Your task to perform on an android device: see creations saved in the google photos Image 0: 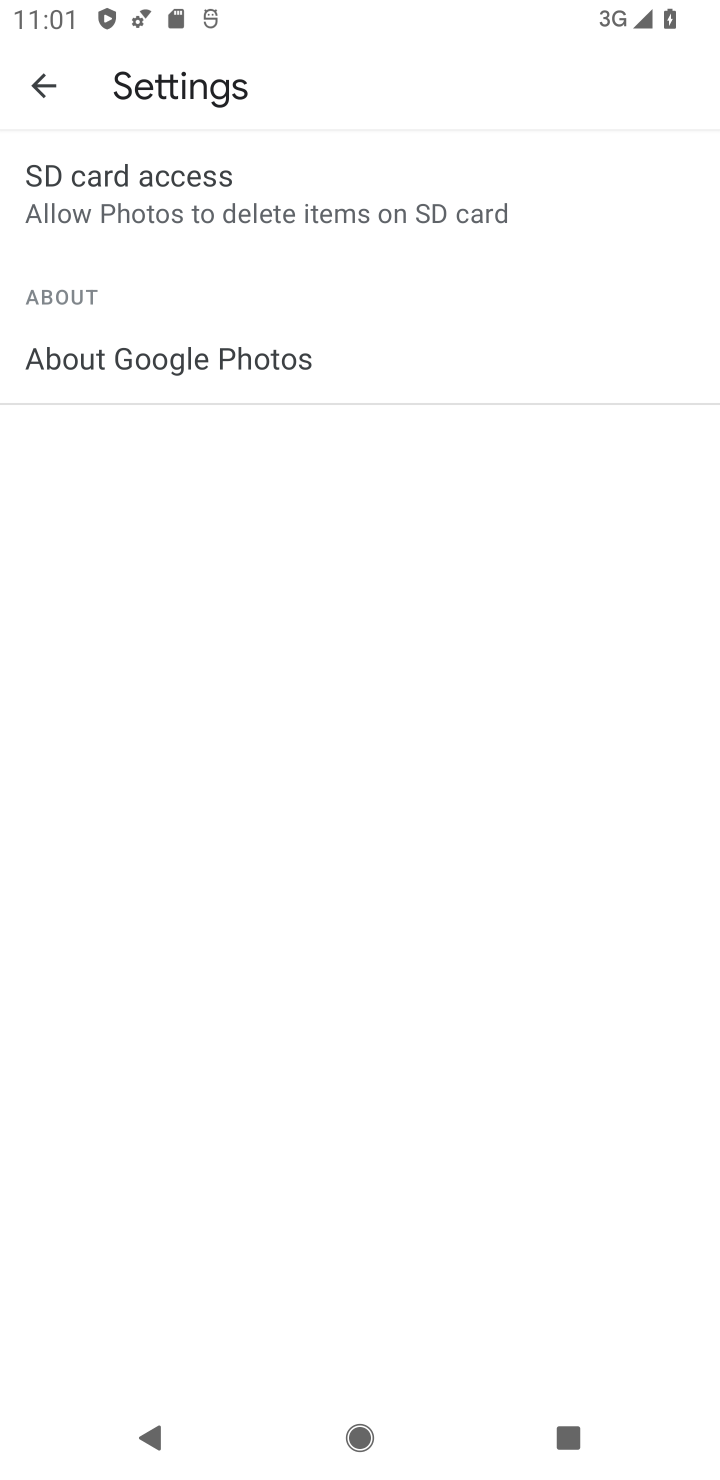
Step 0: press enter
Your task to perform on an android device: see creations saved in the google photos Image 1: 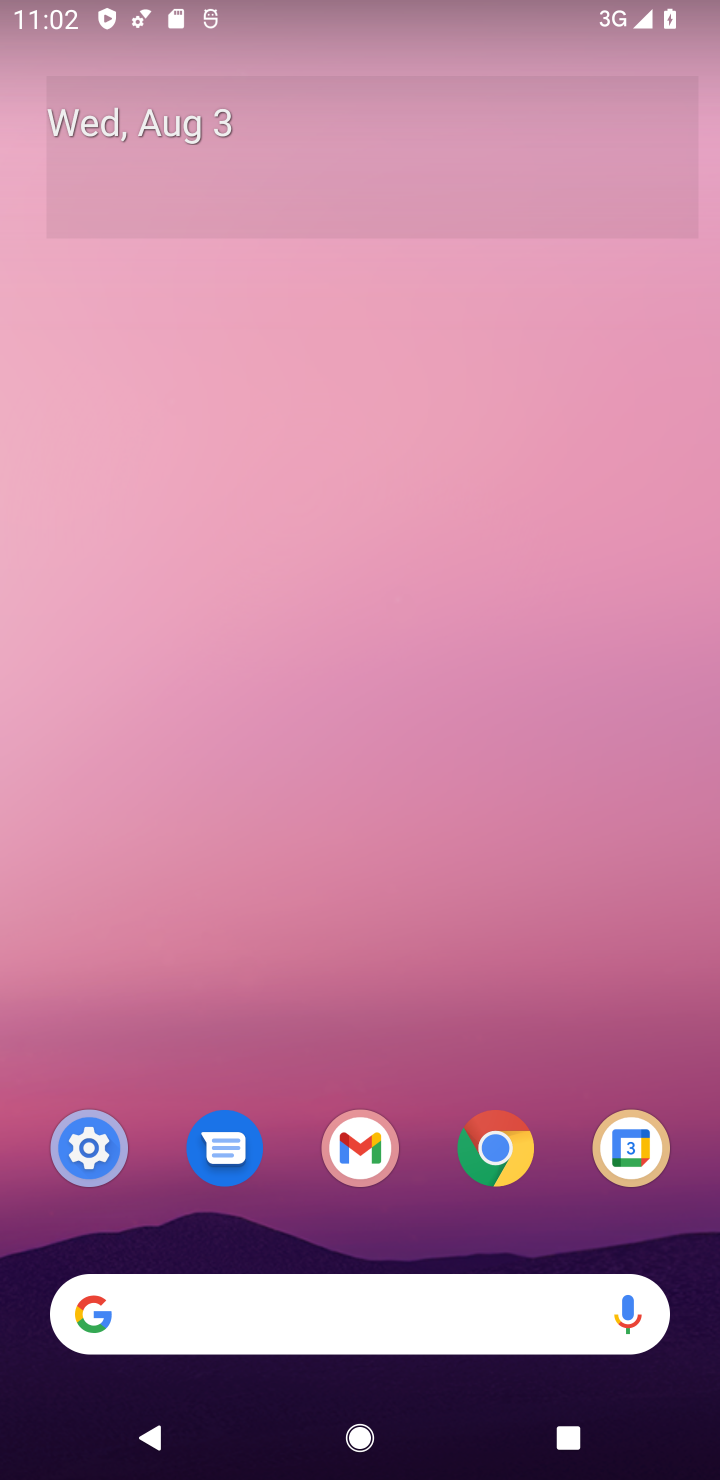
Step 1: drag from (402, 1043) to (478, 396)
Your task to perform on an android device: see creations saved in the google photos Image 2: 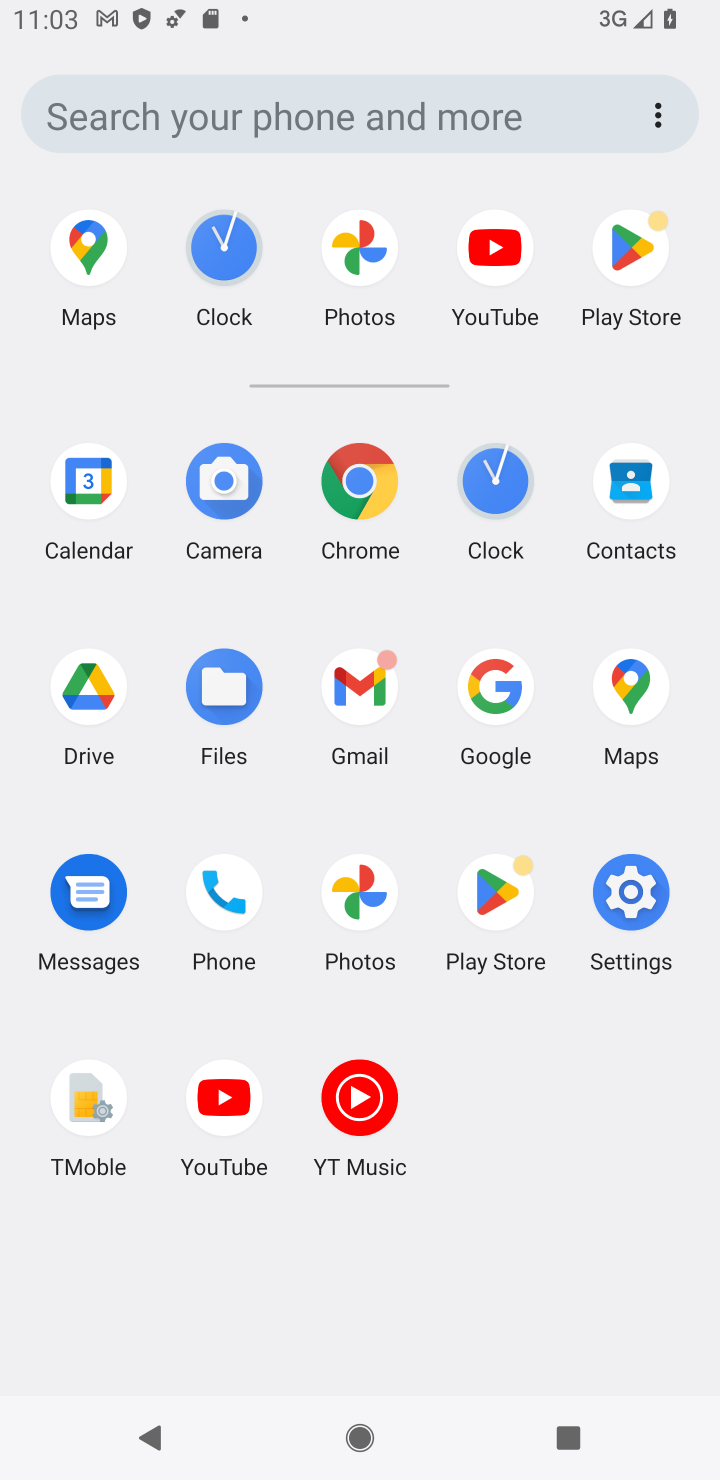
Step 2: click (350, 910)
Your task to perform on an android device: see creations saved in the google photos Image 3: 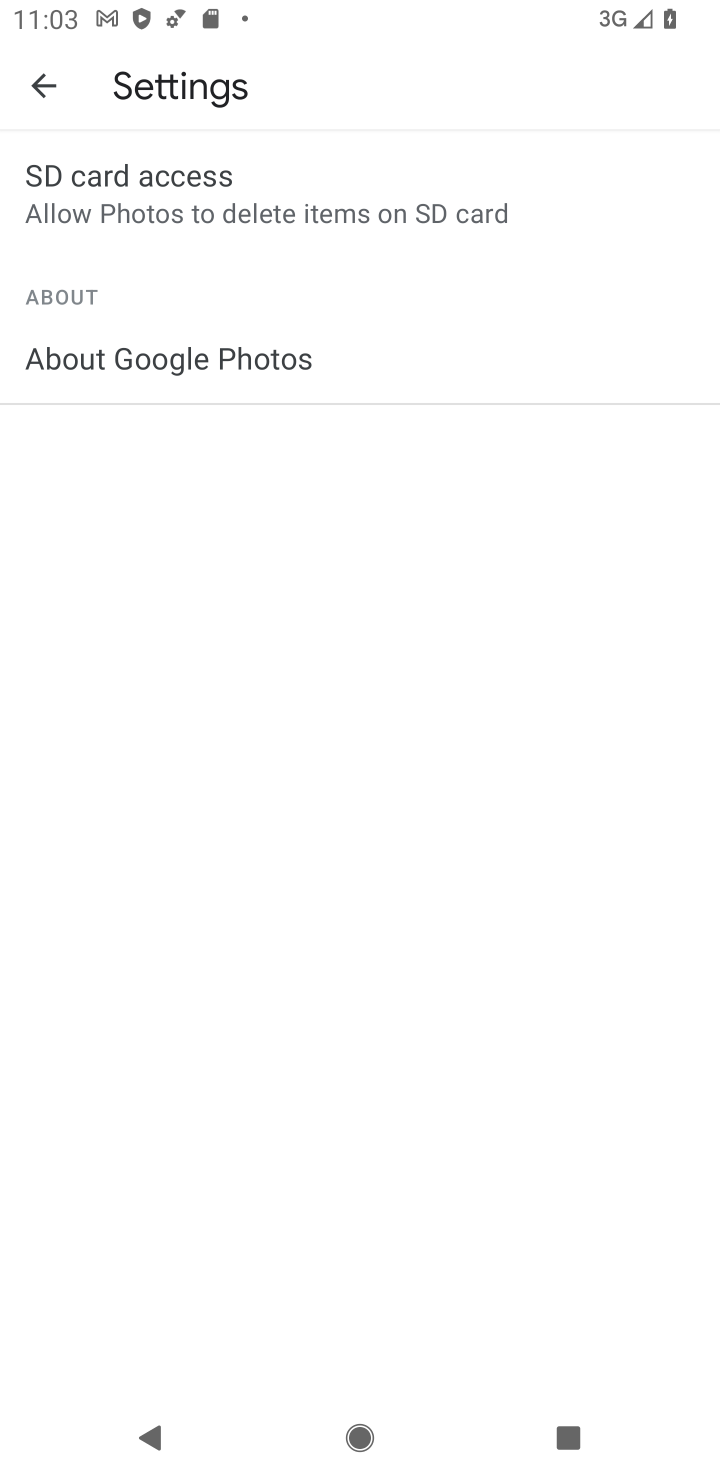
Step 3: click (29, 88)
Your task to perform on an android device: see creations saved in the google photos Image 4: 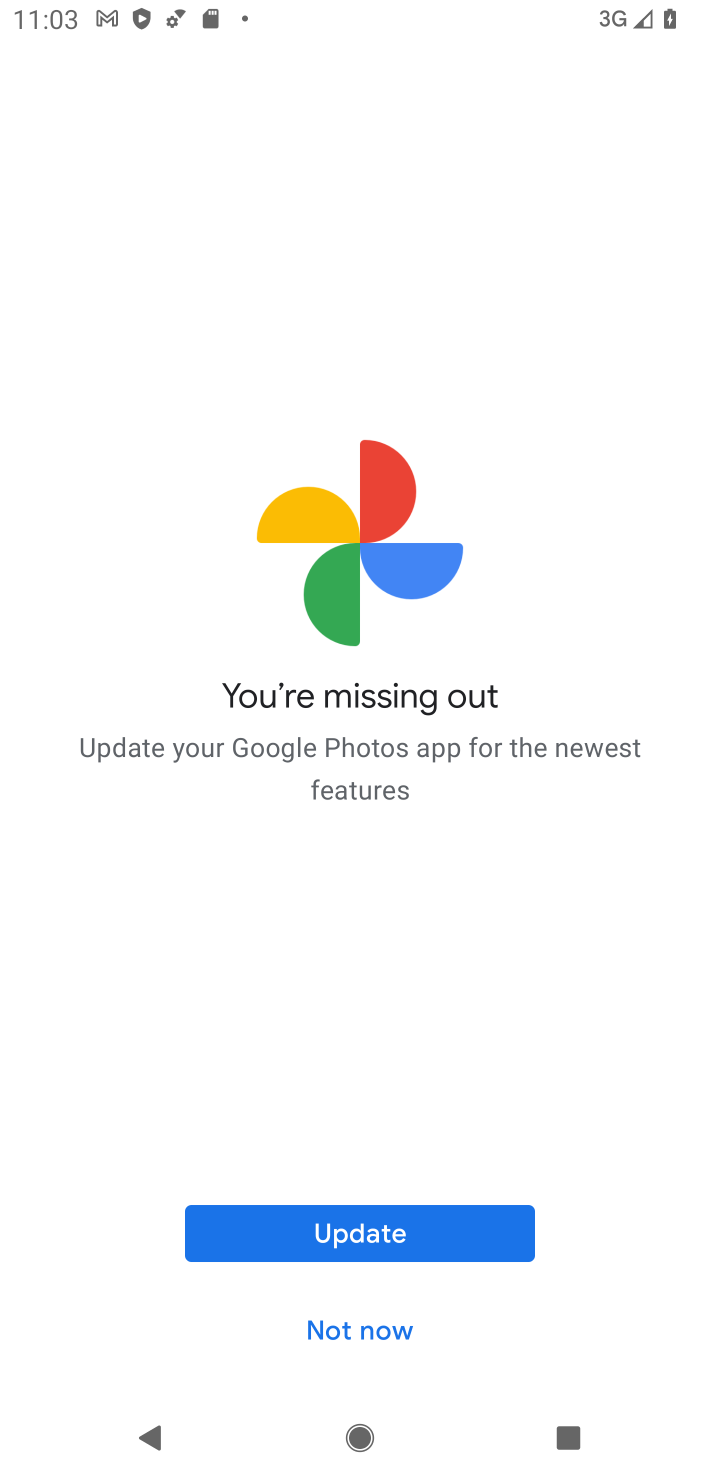
Step 4: task complete